Your task to perform on an android device: add a contact Image 0: 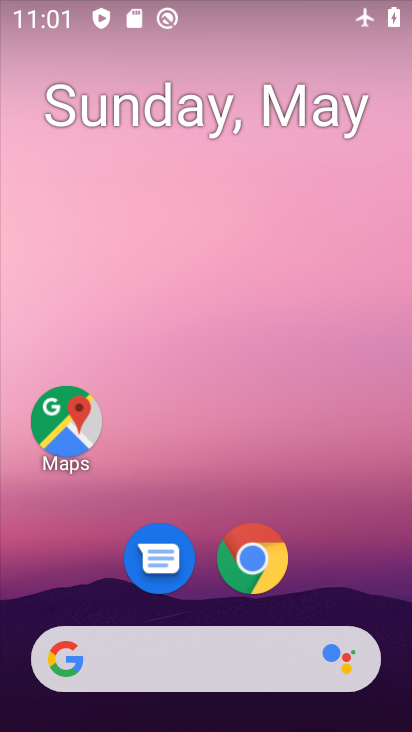
Step 0: drag from (355, 600) to (349, 94)
Your task to perform on an android device: add a contact Image 1: 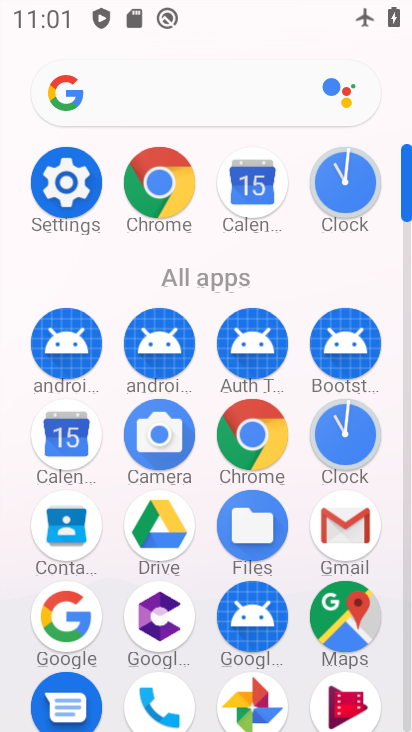
Step 1: click (80, 531)
Your task to perform on an android device: add a contact Image 2: 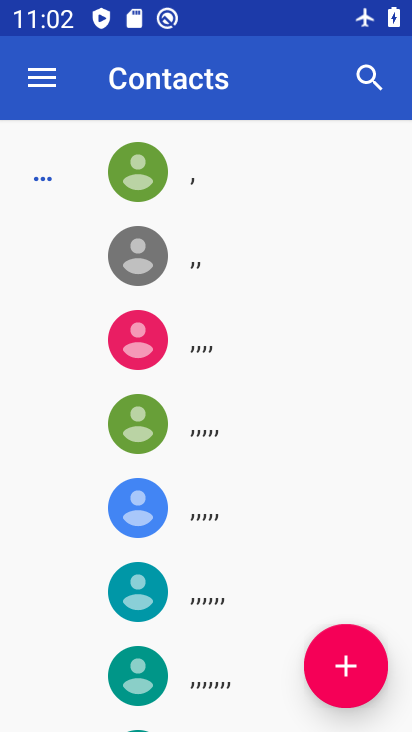
Step 2: click (361, 669)
Your task to perform on an android device: add a contact Image 3: 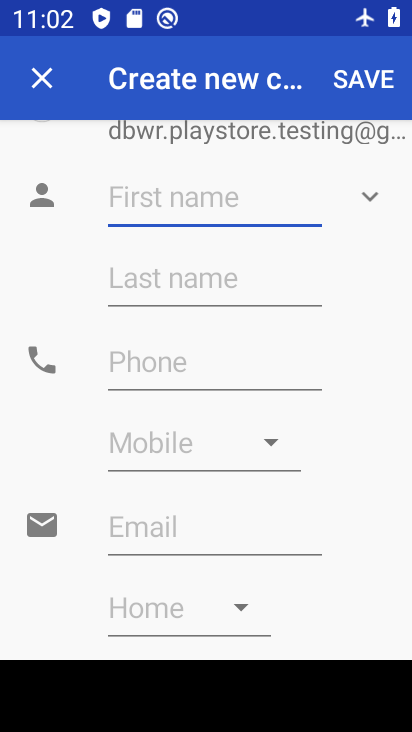
Step 3: type "me"
Your task to perform on an android device: add a contact Image 4: 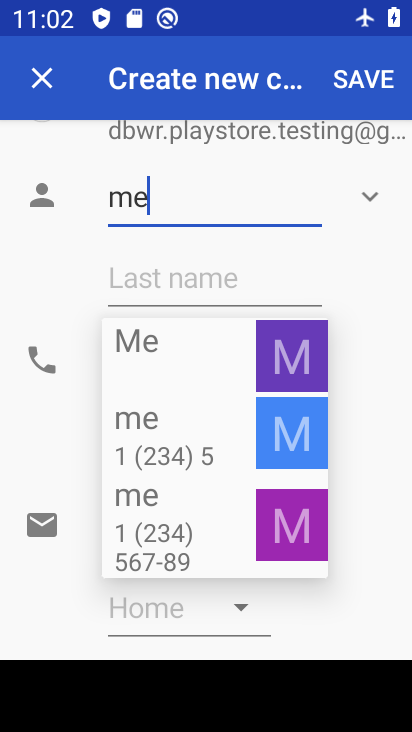
Step 4: click (381, 327)
Your task to perform on an android device: add a contact Image 5: 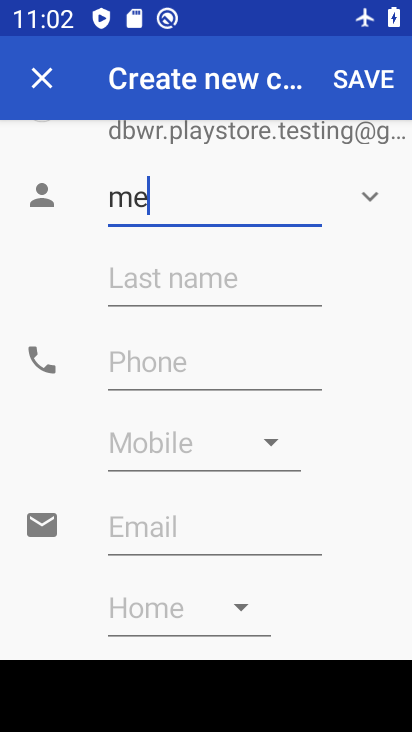
Step 5: click (206, 365)
Your task to perform on an android device: add a contact Image 6: 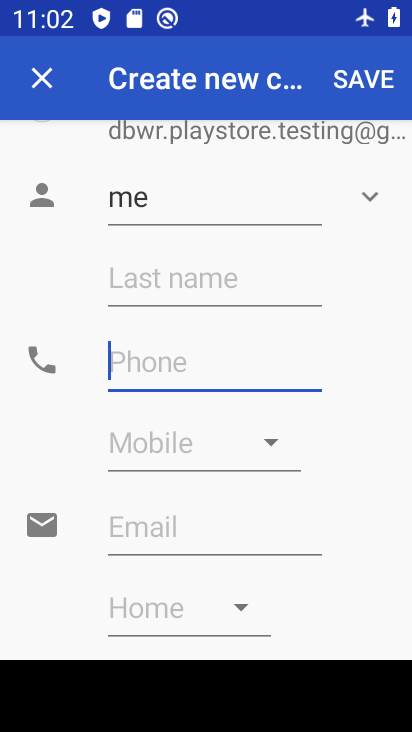
Step 6: type "123456789"
Your task to perform on an android device: add a contact Image 7: 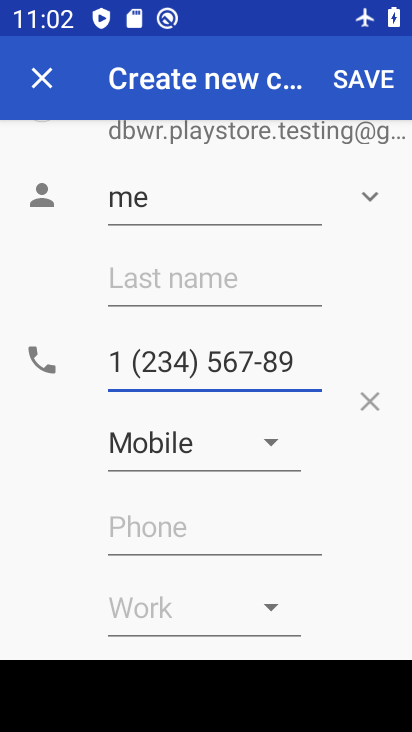
Step 7: click (359, 79)
Your task to perform on an android device: add a contact Image 8: 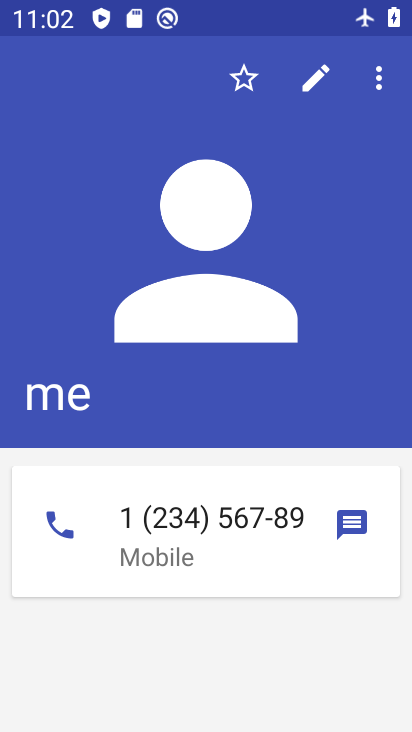
Step 8: task complete